Your task to perform on an android device: turn notification dots on Image 0: 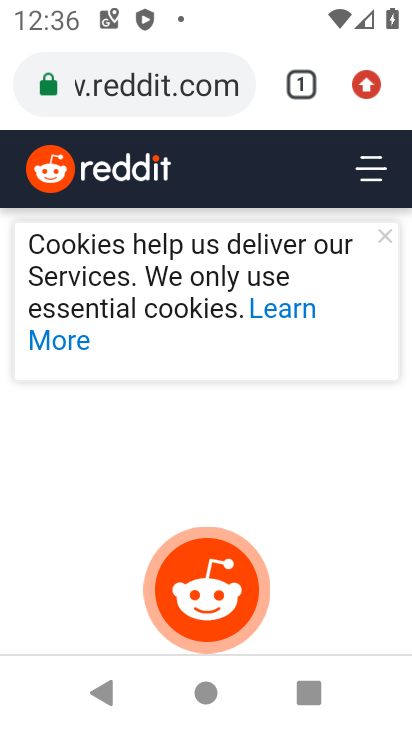
Step 0: press home button
Your task to perform on an android device: turn notification dots on Image 1: 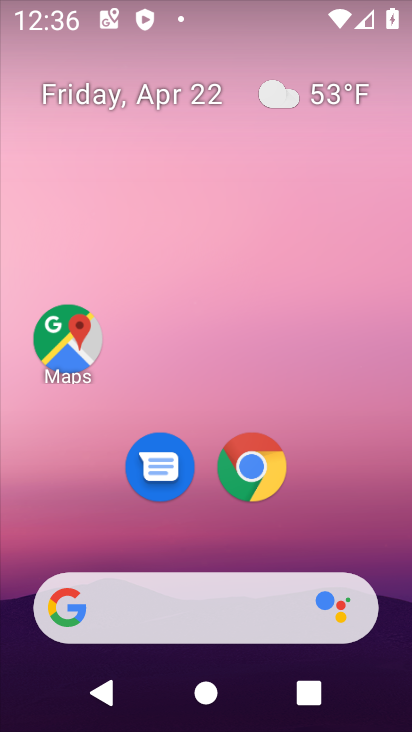
Step 1: drag from (390, 610) to (271, 204)
Your task to perform on an android device: turn notification dots on Image 2: 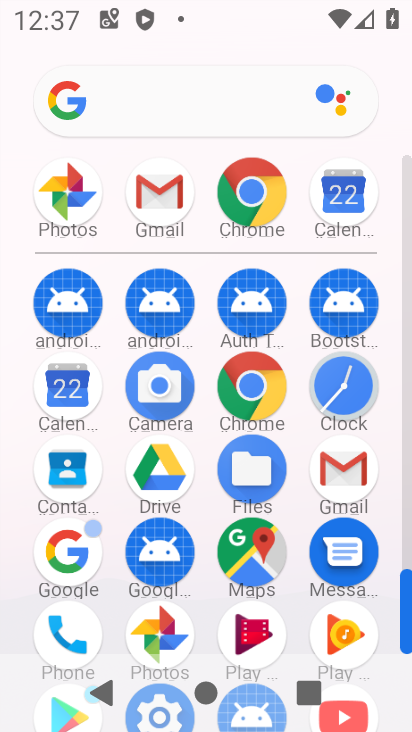
Step 2: click (406, 659)
Your task to perform on an android device: turn notification dots on Image 3: 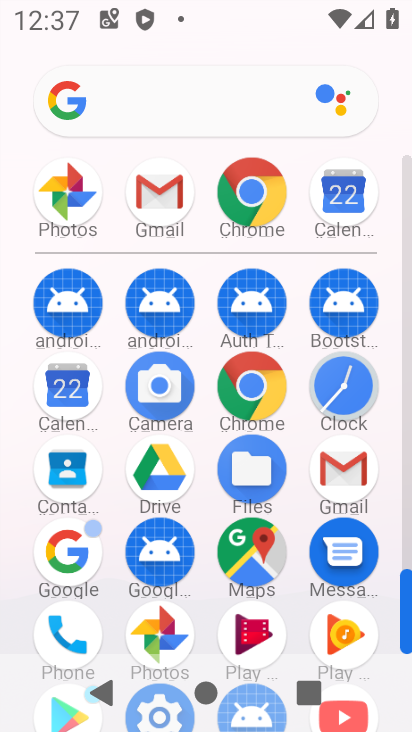
Step 3: drag from (409, 551) to (399, 405)
Your task to perform on an android device: turn notification dots on Image 4: 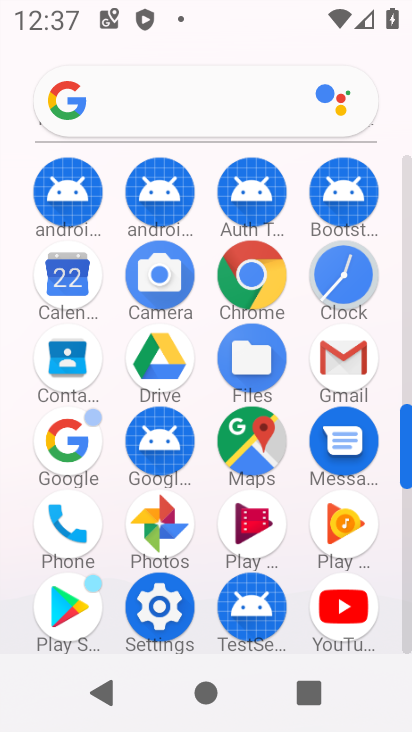
Step 4: click (151, 601)
Your task to perform on an android device: turn notification dots on Image 5: 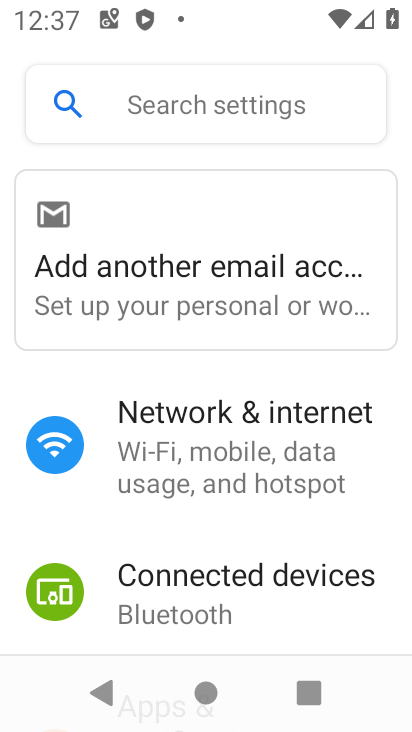
Step 5: drag from (284, 568) to (261, 233)
Your task to perform on an android device: turn notification dots on Image 6: 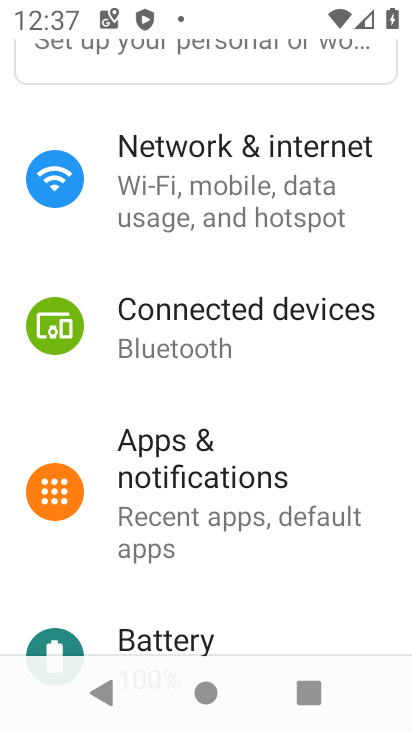
Step 6: click (199, 464)
Your task to perform on an android device: turn notification dots on Image 7: 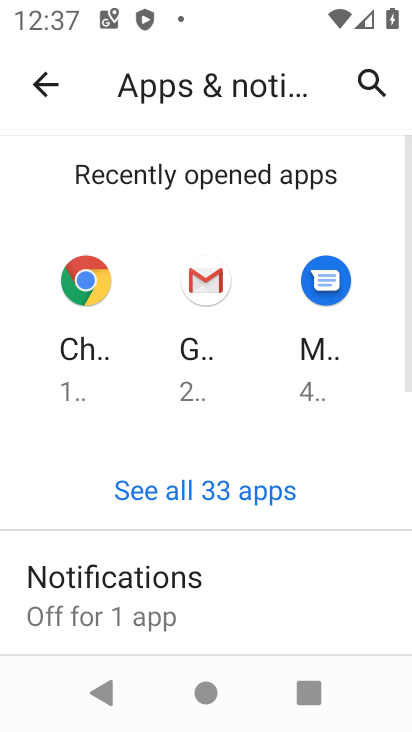
Step 7: drag from (294, 584) to (315, 256)
Your task to perform on an android device: turn notification dots on Image 8: 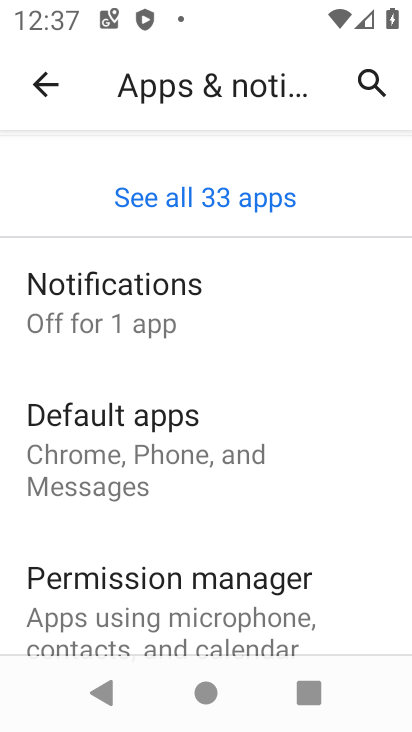
Step 8: click (116, 304)
Your task to perform on an android device: turn notification dots on Image 9: 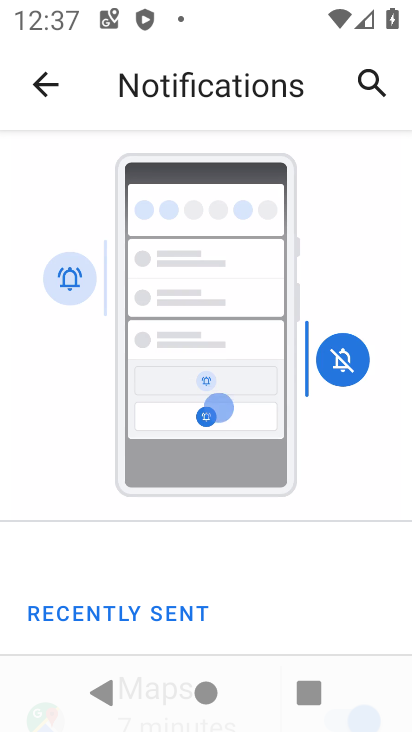
Step 9: drag from (301, 566) to (282, 198)
Your task to perform on an android device: turn notification dots on Image 10: 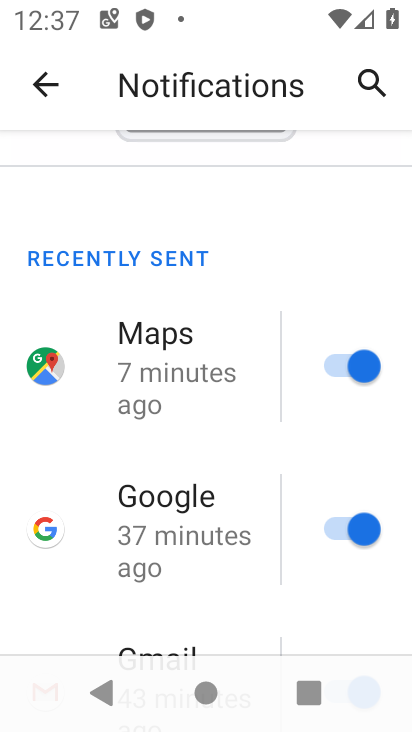
Step 10: drag from (279, 570) to (260, 177)
Your task to perform on an android device: turn notification dots on Image 11: 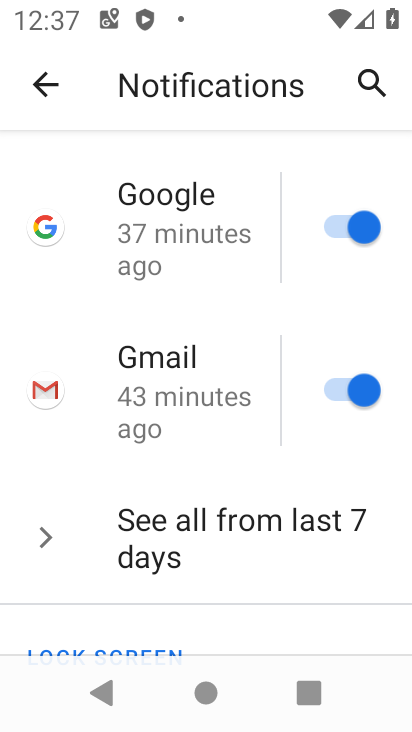
Step 11: drag from (293, 504) to (252, 104)
Your task to perform on an android device: turn notification dots on Image 12: 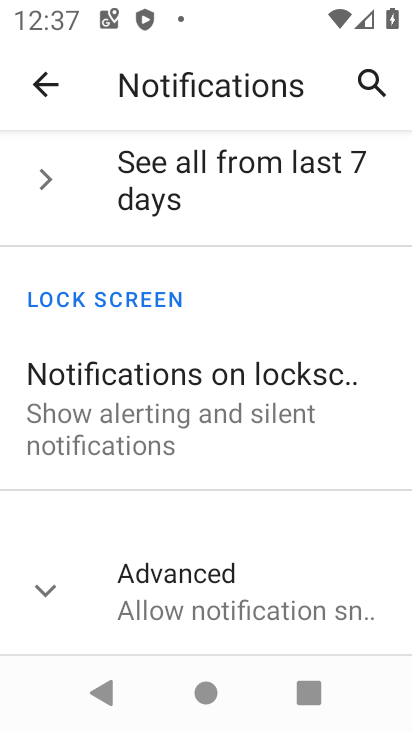
Step 12: click (42, 590)
Your task to perform on an android device: turn notification dots on Image 13: 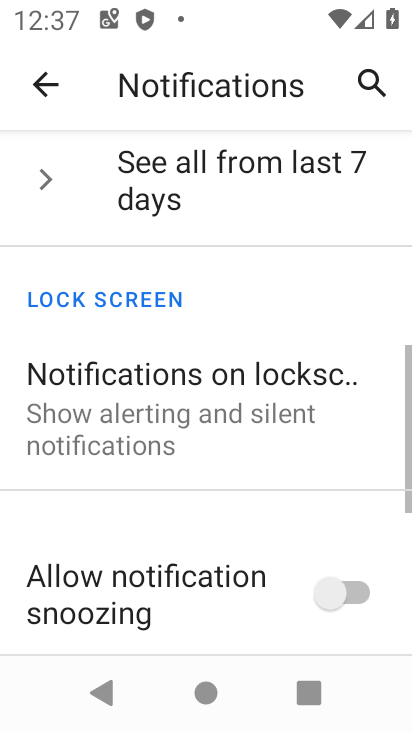
Step 13: task complete